Your task to perform on an android device: change text size in settings app Image 0: 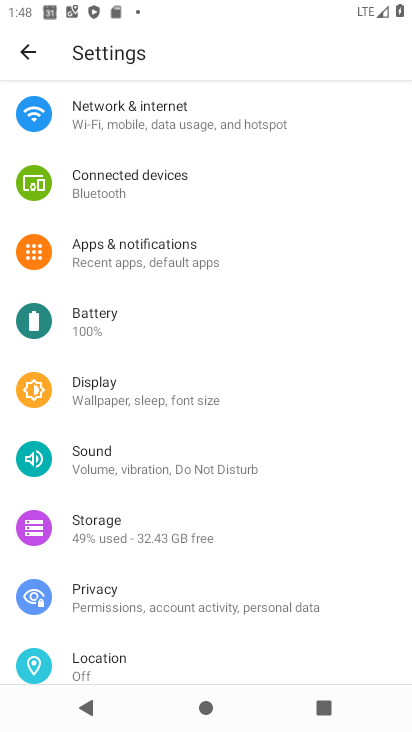
Step 0: press home button
Your task to perform on an android device: change text size in settings app Image 1: 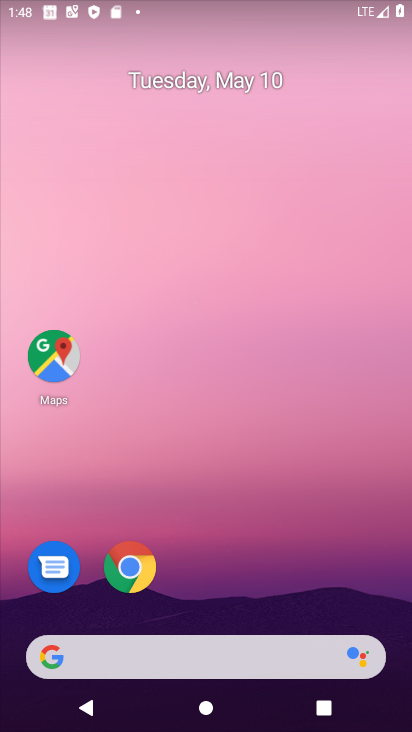
Step 1: drag from (363, 615) to (306, 36)
Your task to perform on an android device: change text size in settings app Image 2: 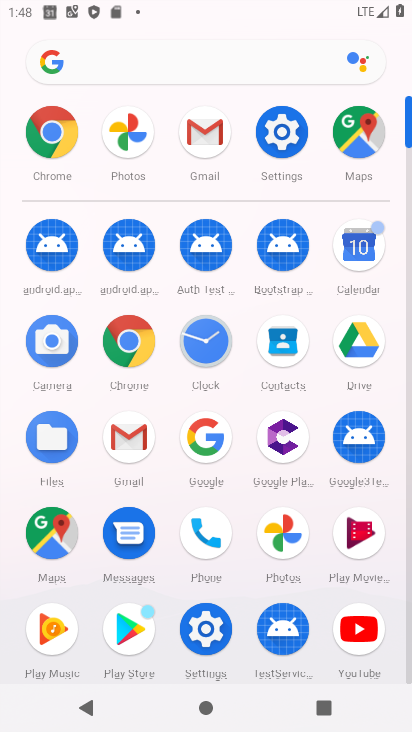
Step 2: click (279, 139)
Your task to perform on an android device: change text size in settings app Image 3: 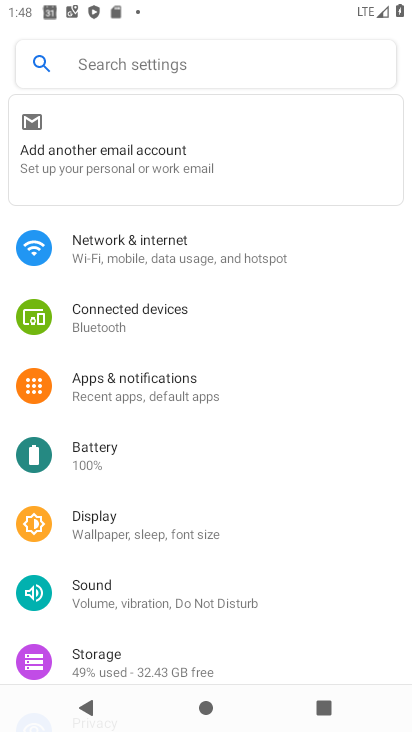
Step 3: click (127, 529)
Your task to perform on an android device: change text size in settings app Image 4: 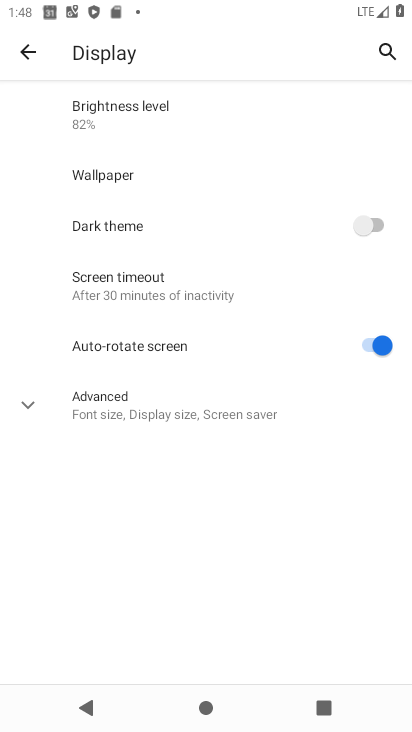
Step 4: click (107, 406)
Your task to perform on an android device: change text size in settings app Image 5: 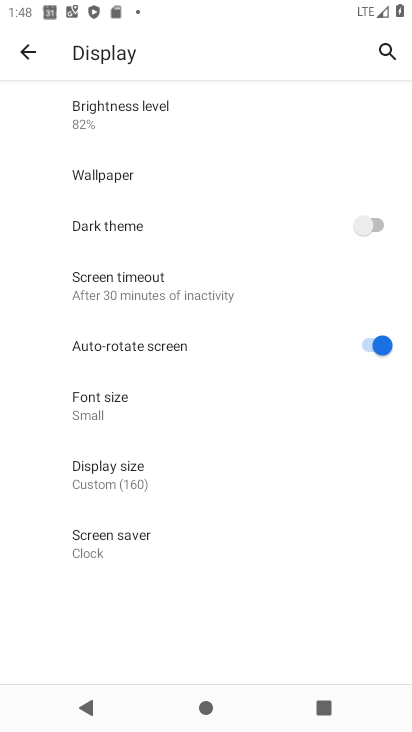
Step 5: click (107, 421)
Your task to perform on an android device: change text size in settings app Image 6: 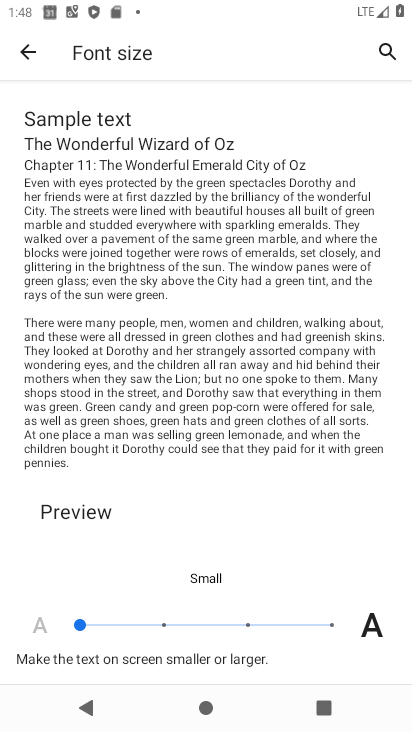
Step 6: click (164, 622)
Your task to perform on an android device: change text size in settings app Image 7: 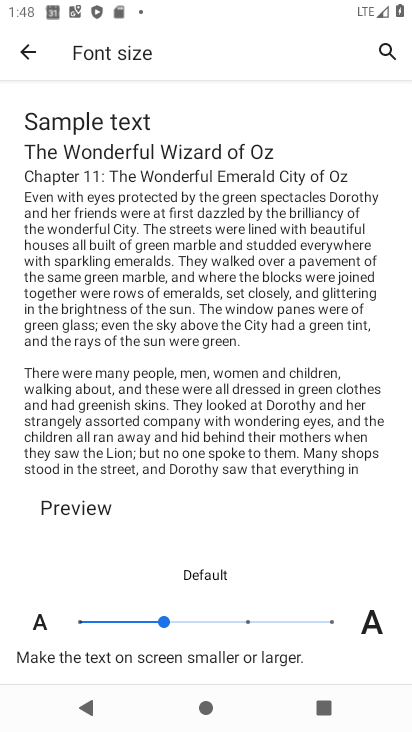
Step 7: task complete